Your task to perform on an android device: Search for seafood restaurants on Google Maps Image 0: 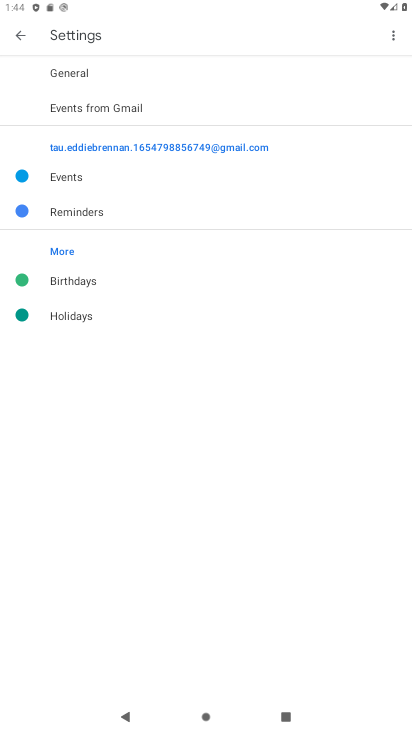
Step 0: press home button
Your task to perform on an android device: Search for seafood restaurants on Google Maps Image 1: 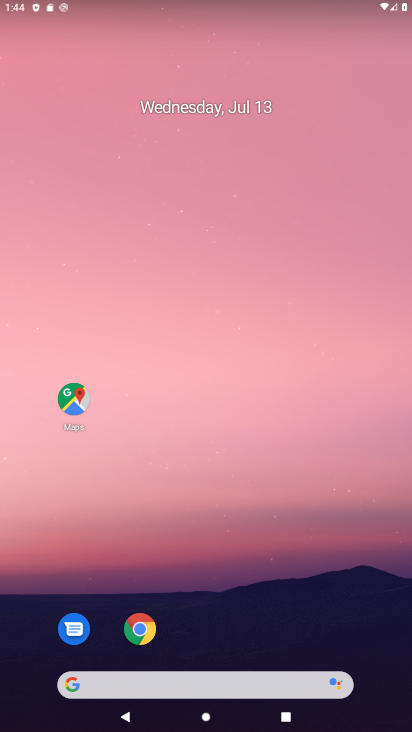
Step 1: click (71, 400)
Your task to perform on an android device: Search for seafood restaurants on Google Maps Image 2: 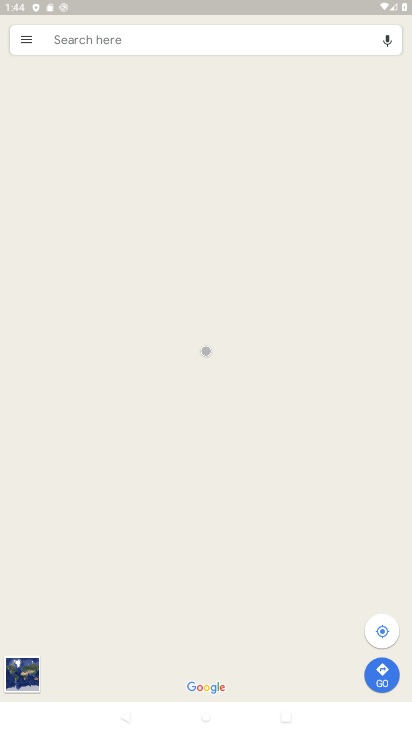
Step 2: click (198, 38)
Your task to perform on an android device: Search for seafood restaurants on Google Maps Image 3: 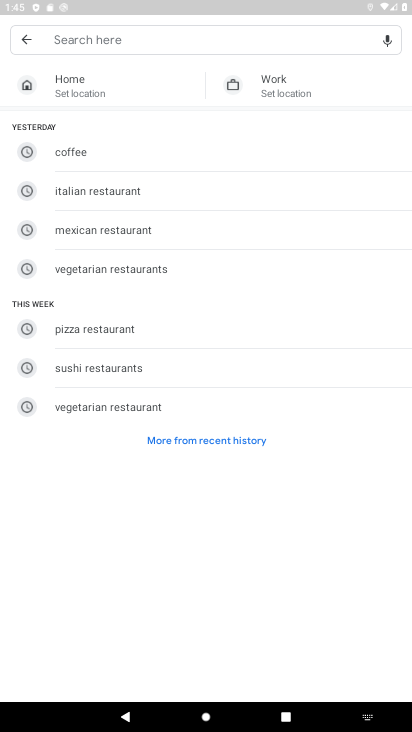
Step 3: type "seafood restaurants"
Your task to perform on an android device: Search for seafood restaurants on Google Maps Image 4: 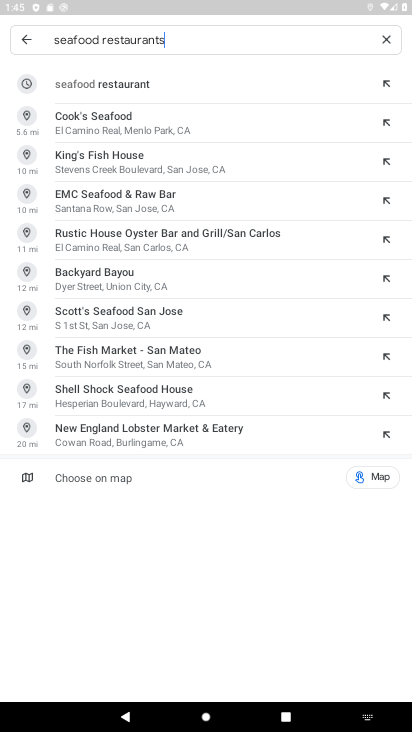
Step 4: click (116, 84)
Your task to perform on an android device: Search for seafood restaurants on Google Maps Image 5: 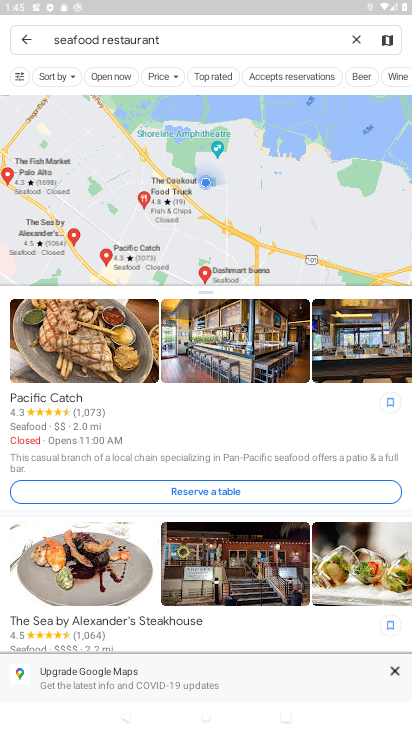
Step 5: task complete